Your task to perform on an android device: Show the shopping cart on newegg. Search for "razer blade" on newegg, select the first entry, and add it to the cart. Image 0: 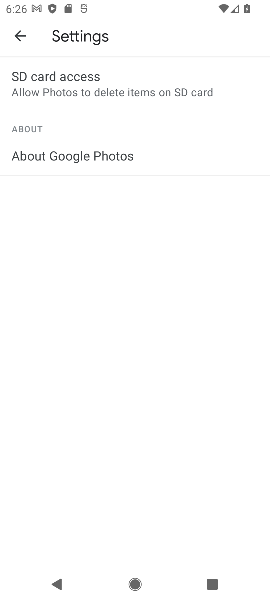
Step 0: press home button
Your task to perform on an android device: Show the shopping cart on newegg. Search for "razer blade" on newegg, select the first entry, and add it to the cart. Image 1: 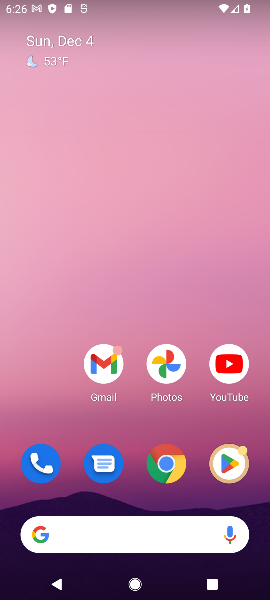
Step 1: click (168, 471)
Your task to perform on an android device: Show the shopping cart on newegg. Search for "razer blade" on newegg, select the first entry, and add it to the cart. Image 2: 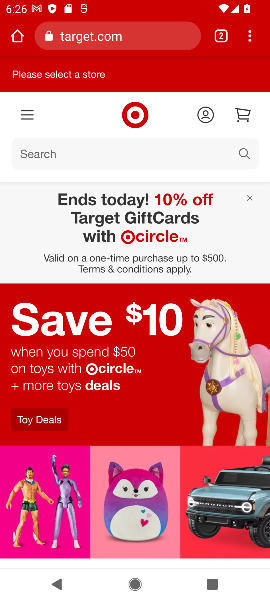
Step 2: click (144, 49)
Your task to perform on an android device: Show the shopping cart on newegg. Search for "razer blade" on newegg, select the first entry, and add it to the cart. Image 3: 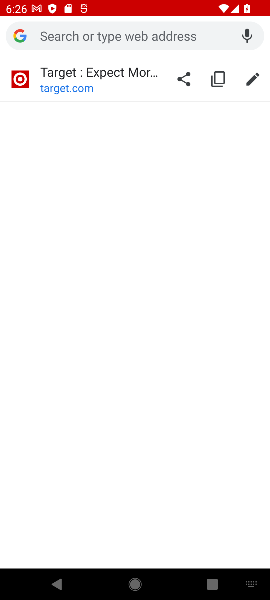
Step 3: type "newegg.com"
Your task to perform on an android device: Show the shopping cart on newegg. Search for "razer blade" on newegg, select the first entry, and add it to the cart. Image 4: 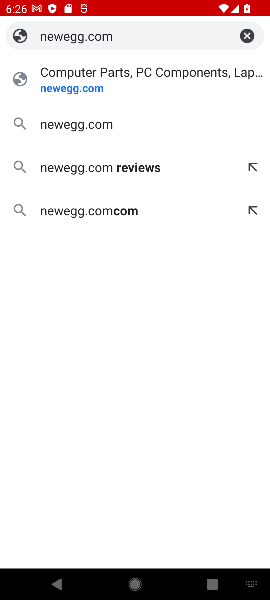
Step 4: click (132, 100)
Your task to perform on an android device: Show the shopping cart on newegg. Search for "razer blade" on newegg, select the first entry, and add it to the cart. Image 5: 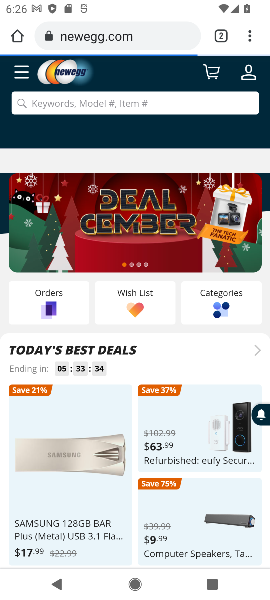
Step 5: click (133, 108)
Your task to perform on an android device: Show the shopping cart on newegg. Search for "razer blade" on newegg, select the first entry, and add it to the cart. Image 6: 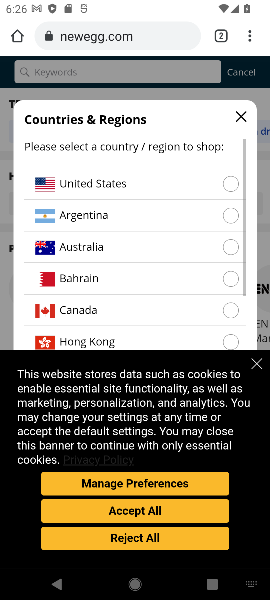
Step 6: type "razer blade"
Your task to perform on an android device: Show the shopping cart on newegg. Search for "razer blade" on newegg, select the first entry, and add it to the cart. Image 7: 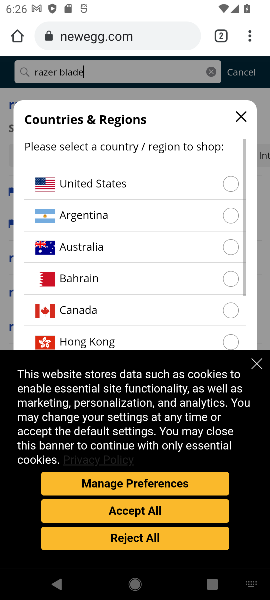
Step 7: click (234, 115)
Your task to perform on an android device: Show the shopping cart on newegg. Search for "razer blade" on newegg, select the first entry, and add it to the cart. Image 8: 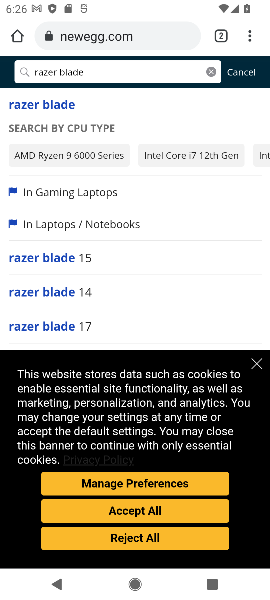
Step 8: click (55, 101)
Your task to perform on an android device: Show the shopping cart on newegg. Search for "razer blade" on newegg, select the first entry, and add it to the cart. Image 9: 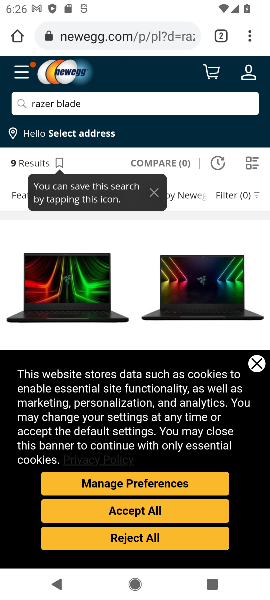
Step 9: click (257, 368)
Your task to perform on an android device: Show the shopping cart on newegg. Search for "razer blade" on newegg, select the first entry, and add it to the cart. Image 10: 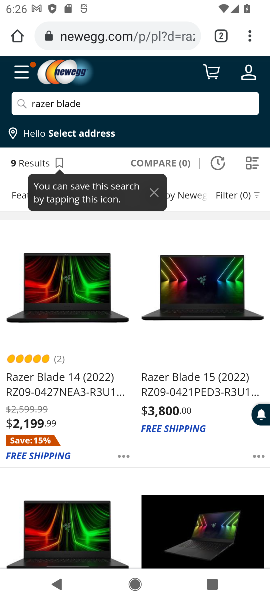
Step 10: click (79, 368)
Your task to perform on an android device: Show the shopping cart on newegg. Search for "razer blade" on newegg, select the first entry, and add it to the cart. Image 11: 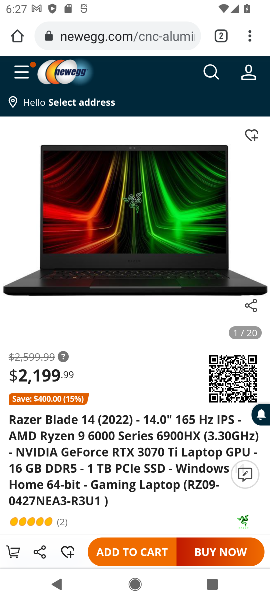
Step 11: click (133, 550)
Your task to perform on an android device: Show the shopping cart on newegg. Search for "razer blade" on newegg, select the first entry, and add it to the cart. Image 12: 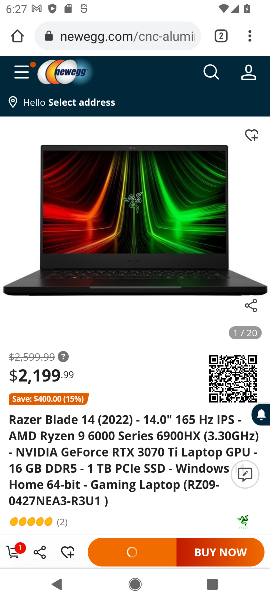
Step 12: task complete